Your task to perform on an android device: check storage Image 0: 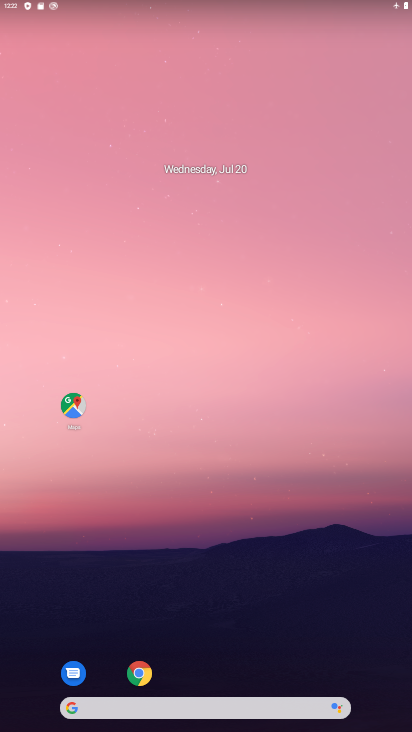
Step 0: drag from (294, 629) to (232, 187)
Your task to perform on an android device: check storage Image 1: 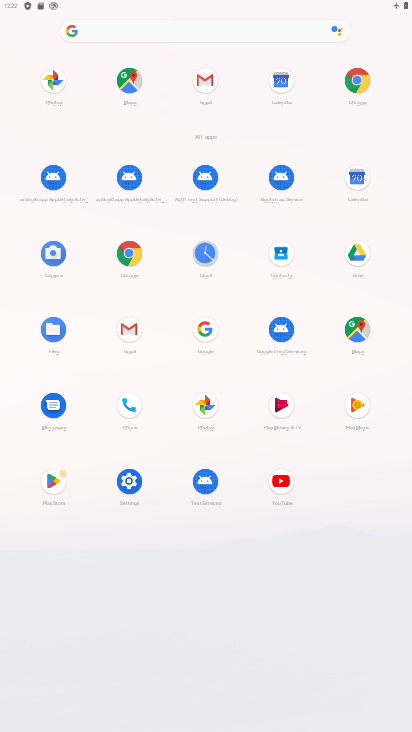
Step 1: click (131, 485)
Your task to perform on an android device: check storage Image 2: 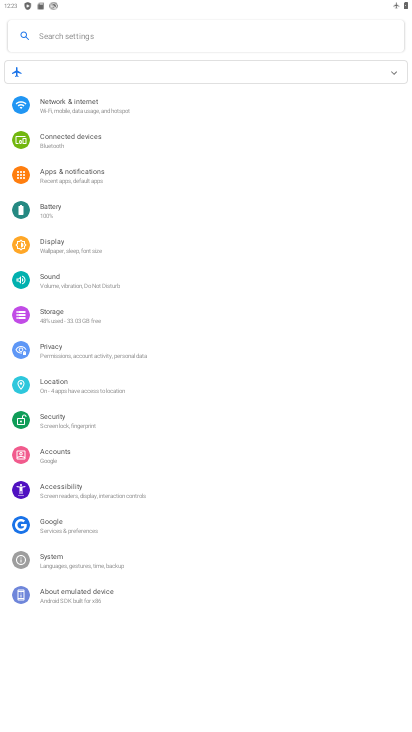
Step 2: click (89, 312)
Your task to perform on an android device: check storage Image 3: 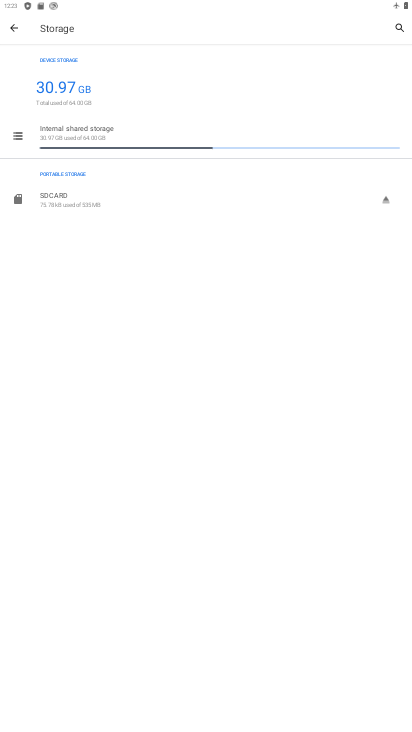
Step 3: task complete